Your task to perform on an android device: toggle javascript in the chrome app Image 0: 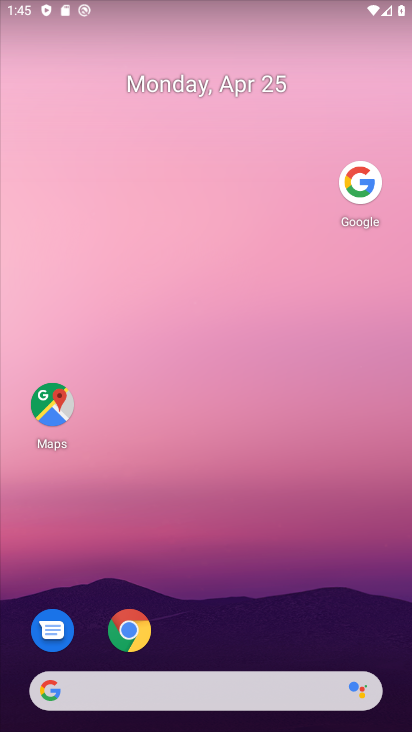
Step 0: drag from (147, 302) to (119, 86)
Your task to perform on an android device: toggle javascript in the chrome app Image 1: 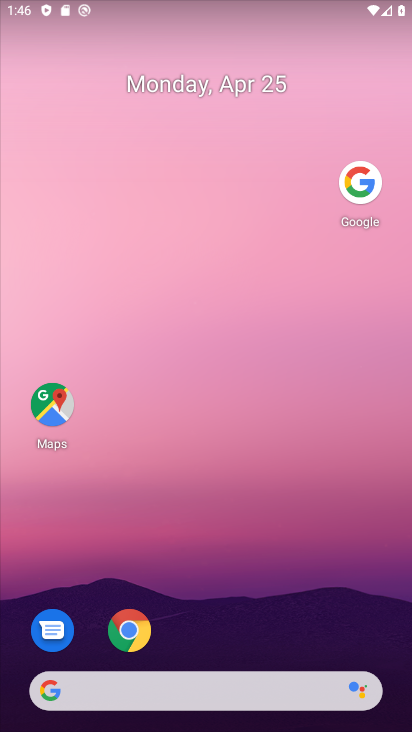
Step 1: drag from (177, 444) to (124, 6)
Your task to perform on an android device: toggle javascript in the chrome app Image 2: 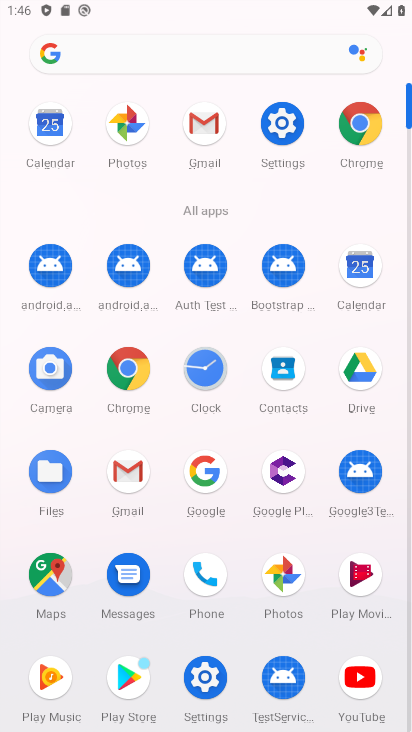
Step 2: click (356, 128)
Your task to perform on an android device: toggle javascript in the chrome app Image 3: 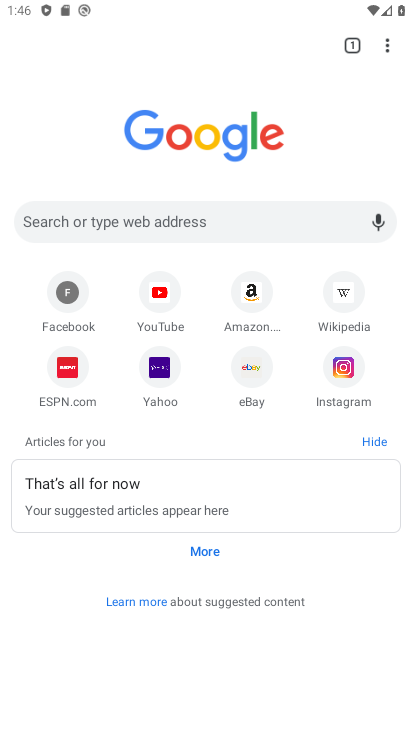
Step 3: drag from (384, 44) to (234, 444)
Your task to perform on an android device: toggle javascript in the chrome app Image 4: 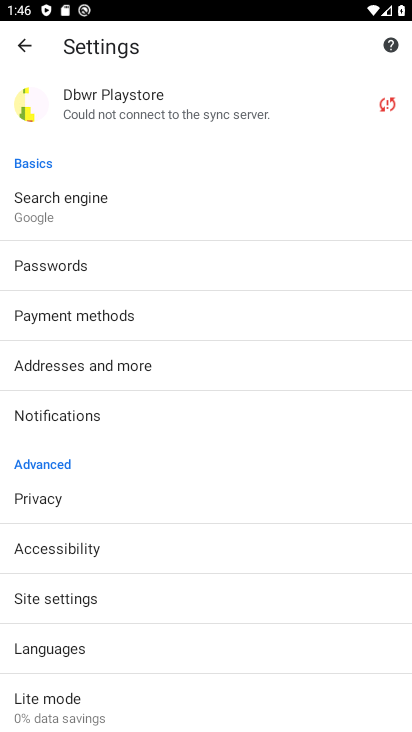
Step 4: click (60, 601)
Your task to perform on an android device: toggle javascript in the chrome app Image 5: 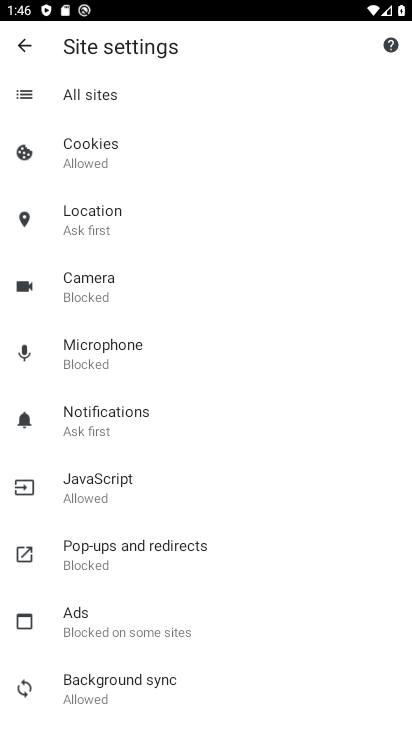
Step 5: click (100, 487)
Your task to perform on an android device: toggle javascript in the chrome app Image 6: 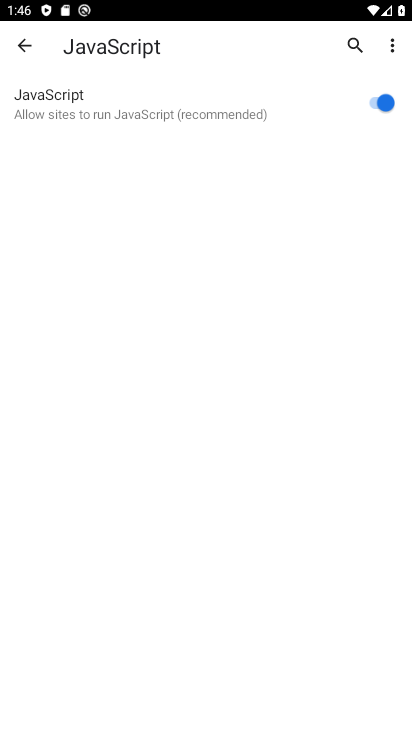
Step 6: click (383, 102)
Your task to perform on an android device: toggle javascript in the chrome app Image 7: 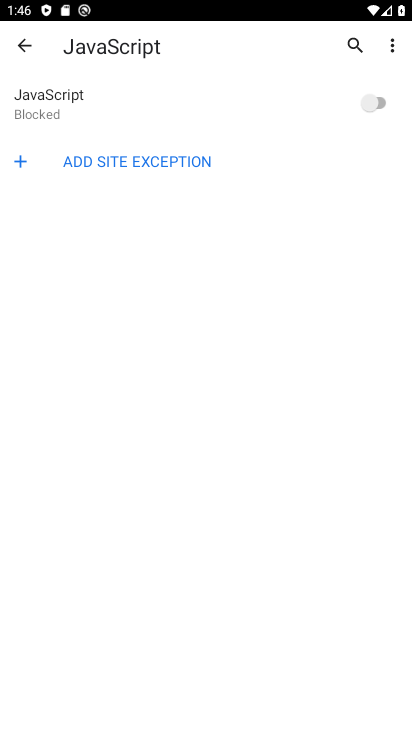
Step 7: task complete